Your task to perform on an android device: When is my next appointment? Image 0: 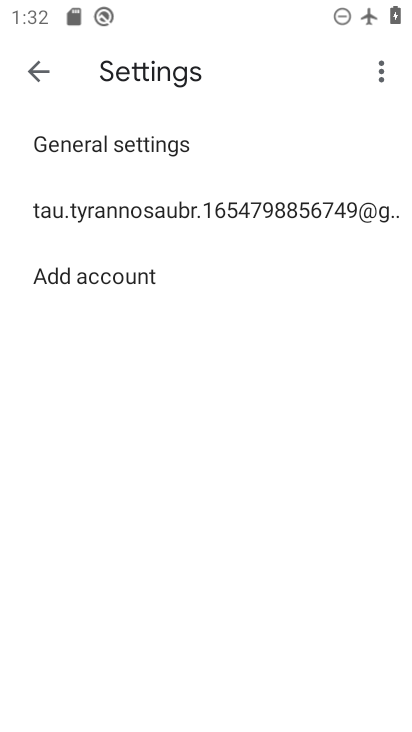
Step 0: press home button
Your task to perform on an android device: When is my next appointment? Image 1: 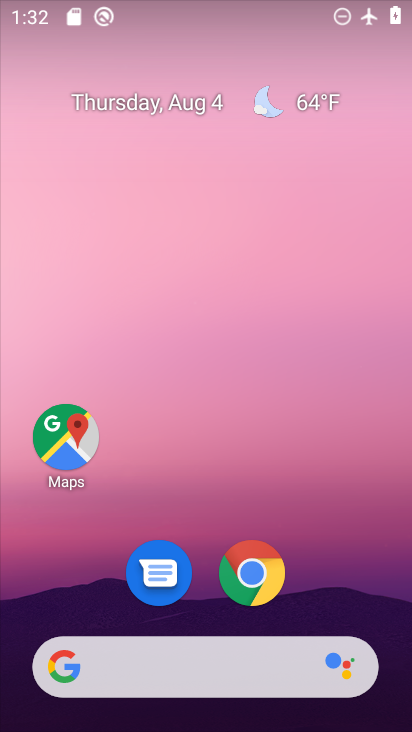
Step 1: drag from (334, 533) to (268, 0)
Your task to perform on an android device: When is my next appointment? Image 2: 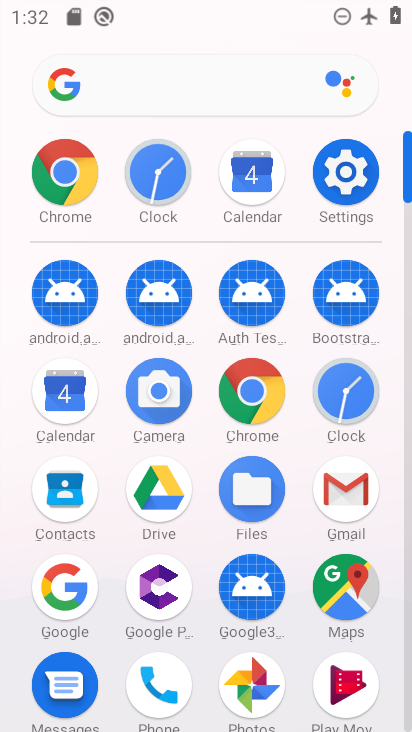
Step 2: click (261, 190)
Your task to perform on an android device: When is my next appointment? Image 3: 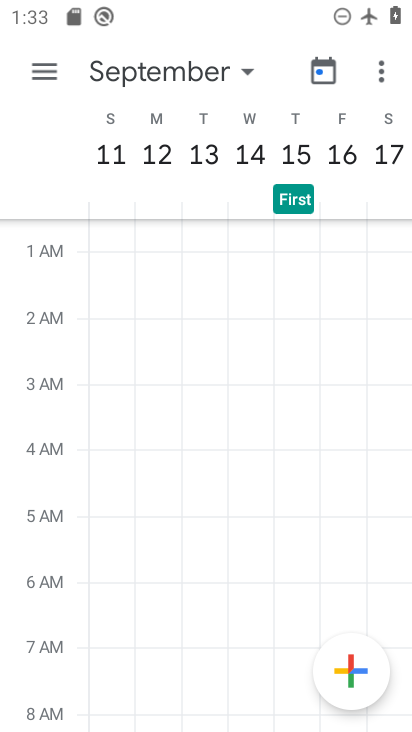
Step 3: click (202, 85)
Your task to perform on an android device: When is my next appointment? Image 4: 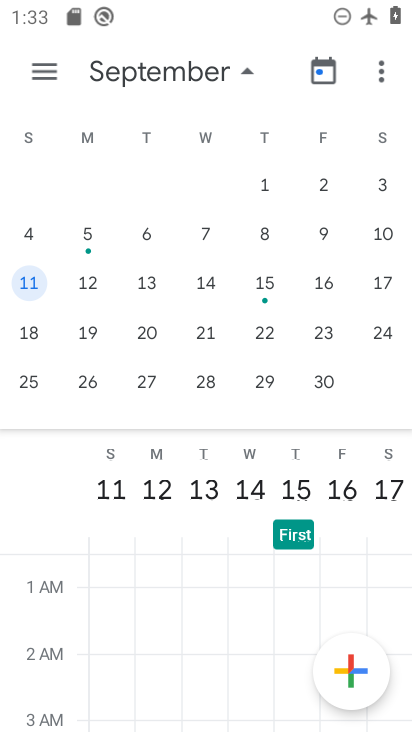
Step 4: task complete